Your task to perform on an android device: Open Google Maps Image 0: 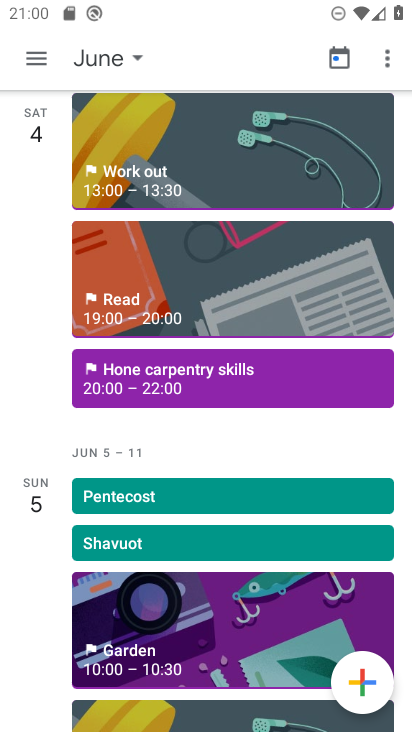
Step 0: click (64, 239)
Your task to perform on an android device: Open Google Maps Image 1: 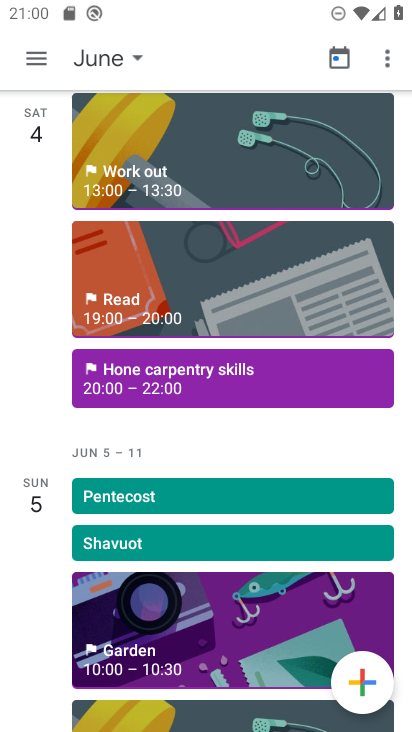
Step 1: press home button
Your task to perform on an android device: Open Google Maps Image 2: 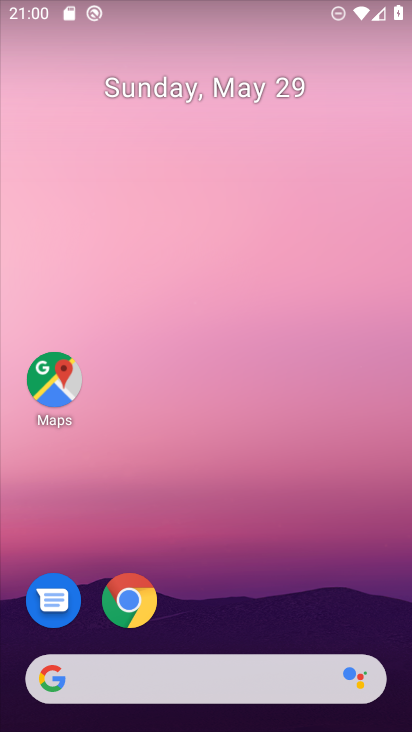
Step 2: click (353, 159)
Your task to perform on an android device: Open Google Maps Image 3: 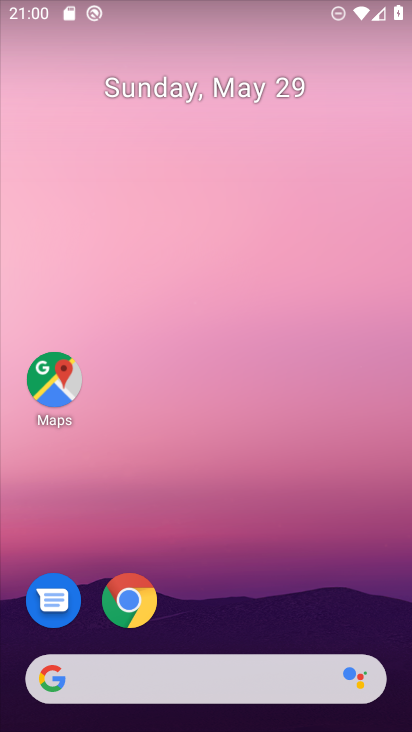
Step 3: drag from (316, 607) to (326, 236)
Your task to perform on an android device: Open Google Maps Image 4: 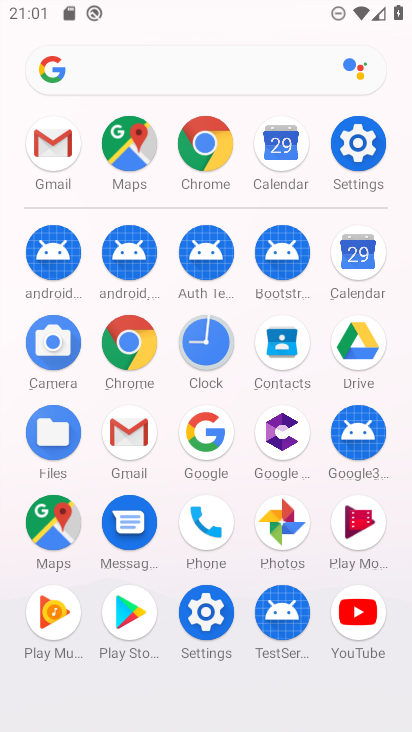
Step 4: click (41, 529)
Your task to perform on an android device: Open Google Maps Image 5: 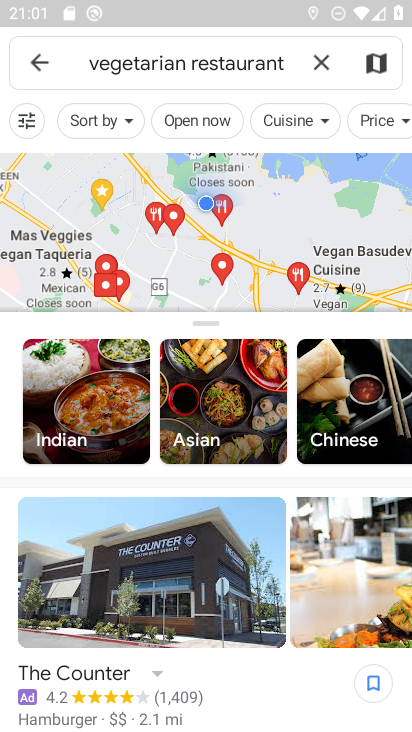
Step 5: task complete